Your task to perform on an android device: Open settings on Google Maps Image 0: 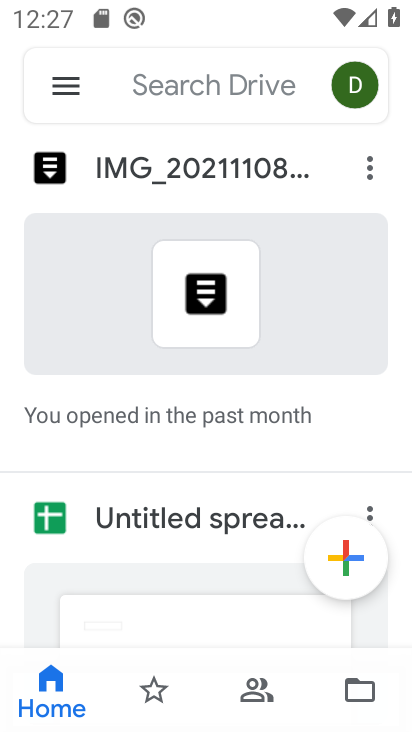
Step 0: press home button
Your task to perform on an android device: Open settings on Google Maps Image 1: 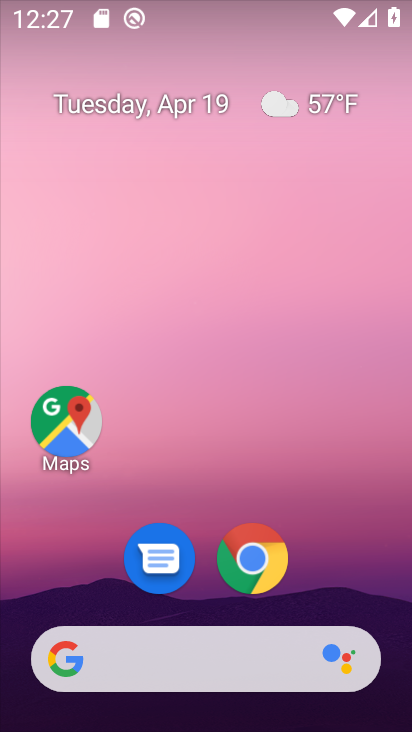
Step 1: drag from (325, 608) to (274, 156)
Your task to perform on an android device: Open settings on Google Maps Image 2: 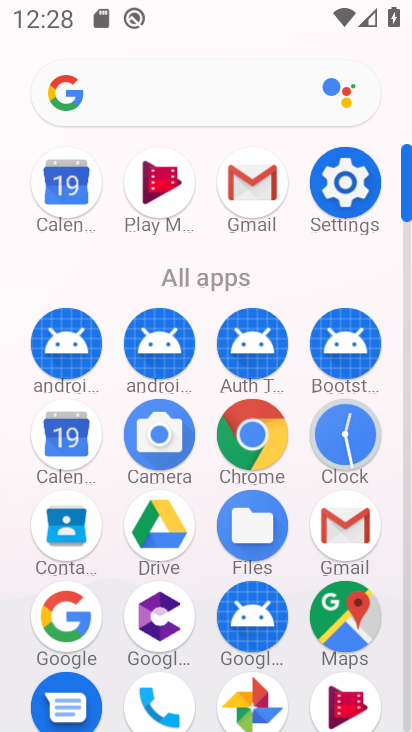
Step 2: click (356, 623)
Your task to perform on an android device: Open settings on Google Maps Image 3: 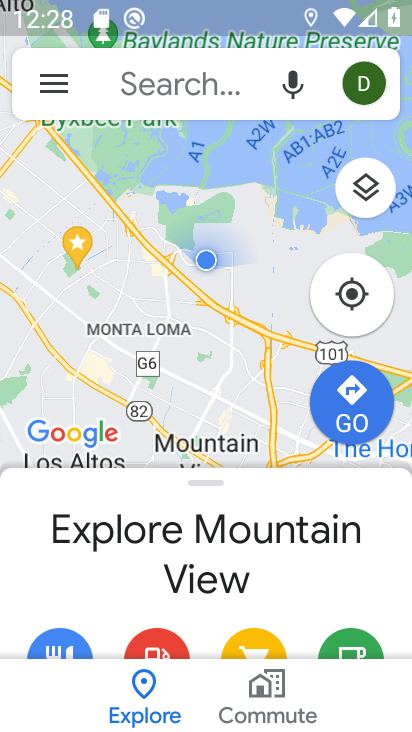
Step 3: click (36, 82)
Your task to perform on an android device: Open settings on Google Maps Image 4: 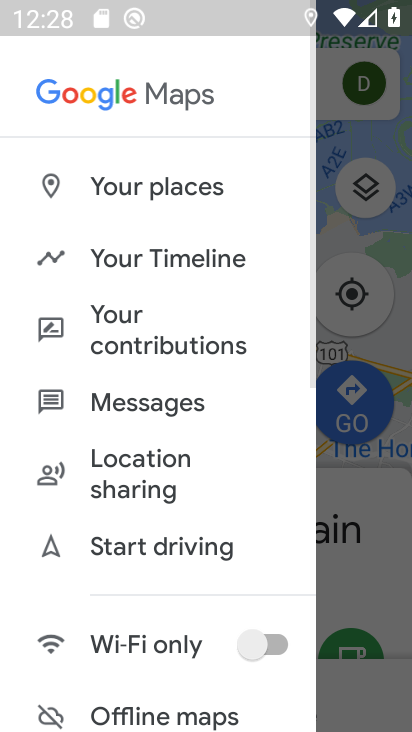
Step 4: drag from (122, 643) to (123, 138)
Your task to perform on an android device: Open settings on Google Maps Image 5: 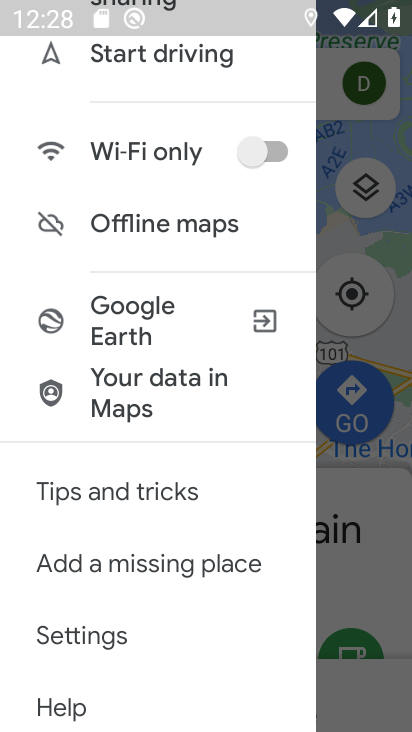
Step 5: click (93, 631)
Your task to perform on an android device: Open settings on Google Maps Image 6: 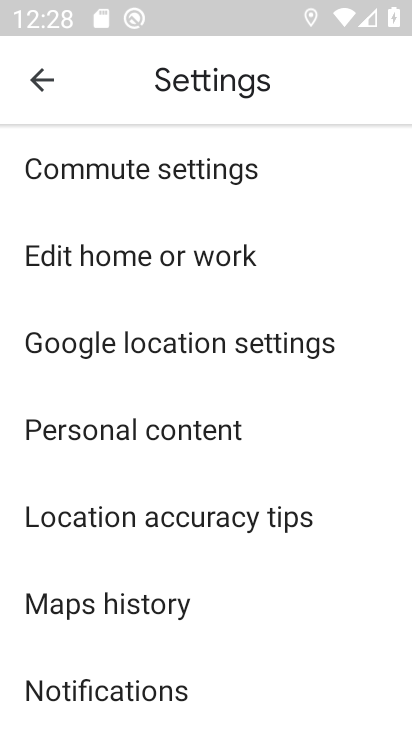
Step 6: task complete